Your task to perform on an android device: turn pop-ups off in chrome Image 0: 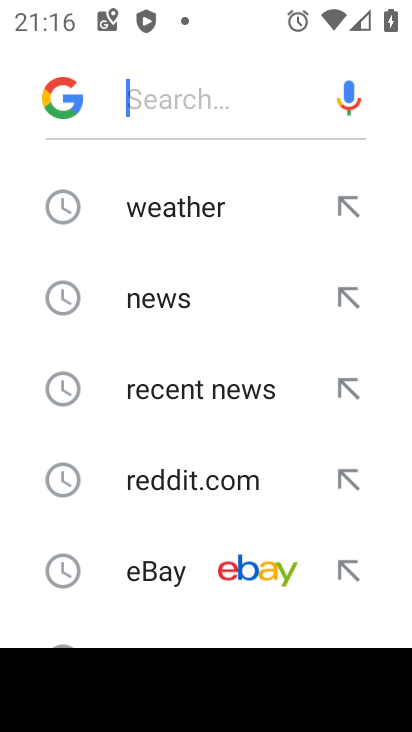
Step 0: press home button
Your task to perform on an android device: turn pop-ups off in chrome Image 1: 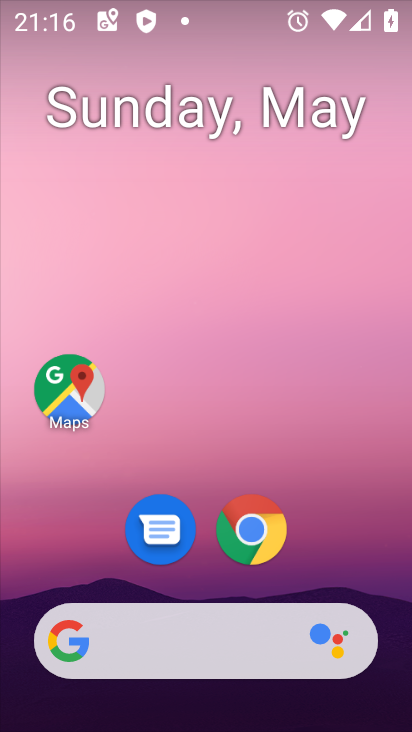
Step 1: click (260, 531)
Your task to perform on an android device: turn pop-ups off in chrome Image 2: 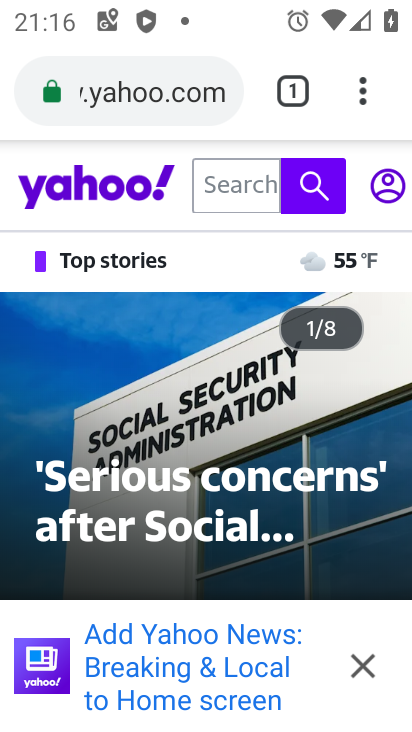
Step 2: click (362, 94)
Your task to perform on an android device: turn pop-ups off in chrome Image 3: 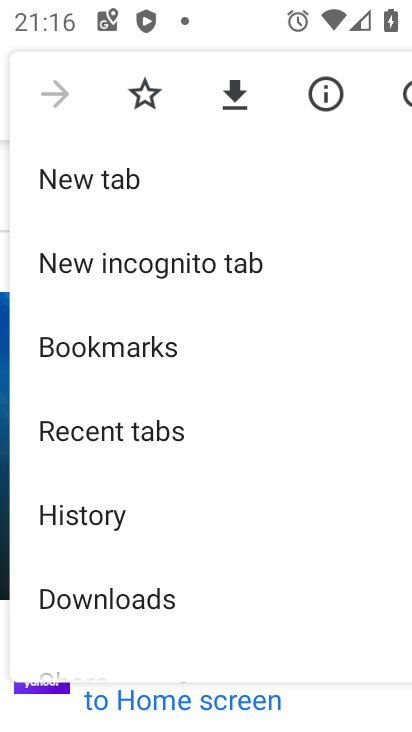
Step 3: drag from (241, 557) to (247, 90)
Your task to perform on an android device: turn pop-ups off in chrome Image 4: 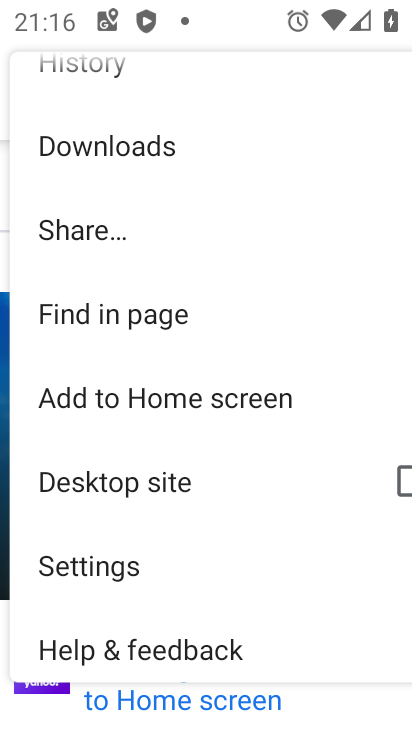
Step 4: click (95, 569)
Your task to perform on an android device: turn pop-ups off in chrome Image 5: 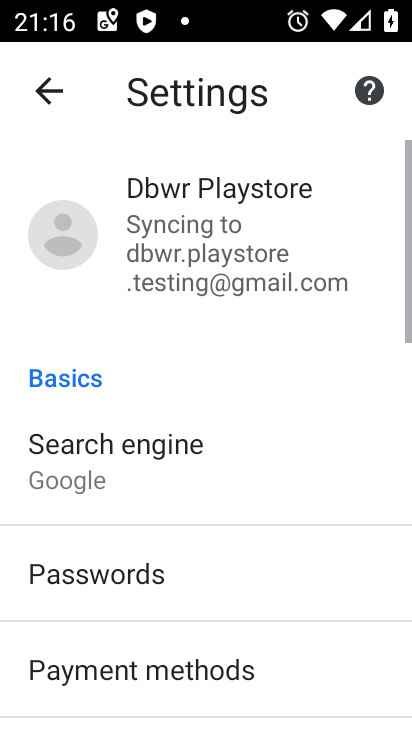
Step 5: drag from (220, 615) to (215, 93)
Your task to perform on an android device: turn pop-ups off in chrome Image 6: 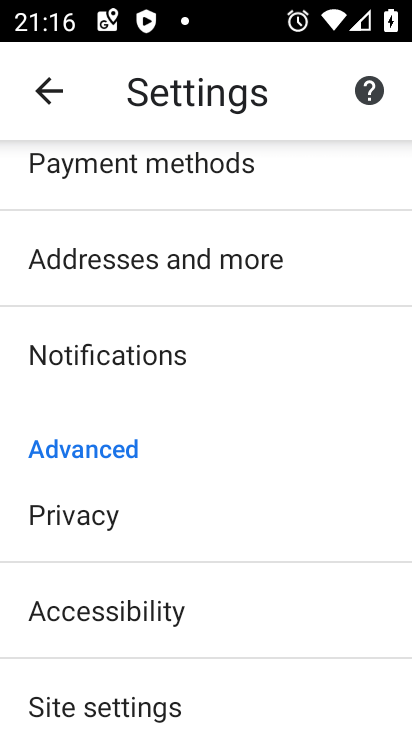
Step 6: drag from (158, 570) to (152, 275)
Your task to perform on an android device: turn pop-ups off in chrome Image 7: 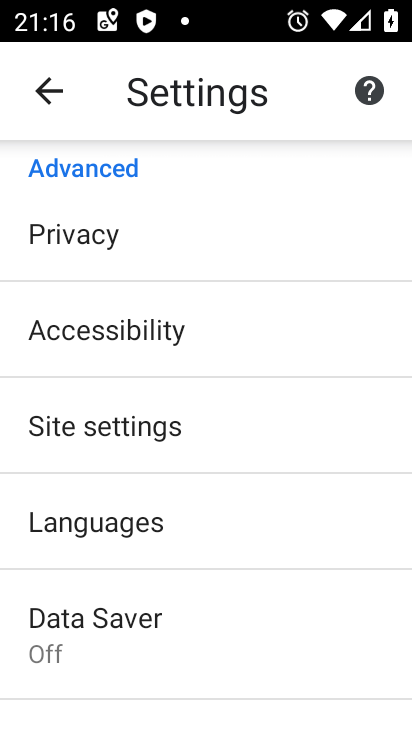
Step 7: click (113, 426)
Your task to perform on an android device: turn pop-ups off in chrome Image 8: 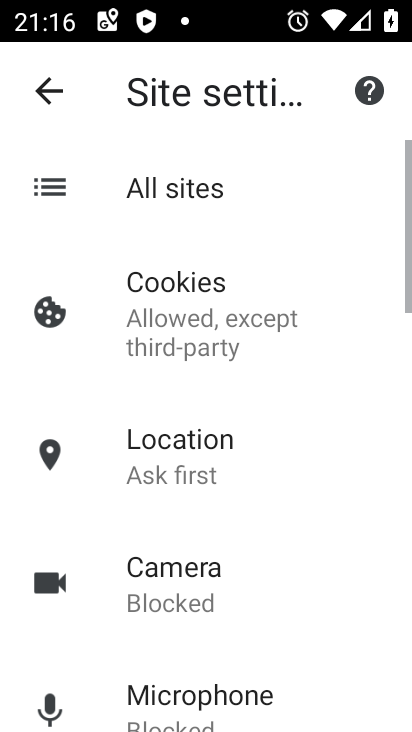
Step 8: drag from (270, 440) to (257, 190)
Your task to perform on an android device: turn pop-ups off in chrome Image 9: 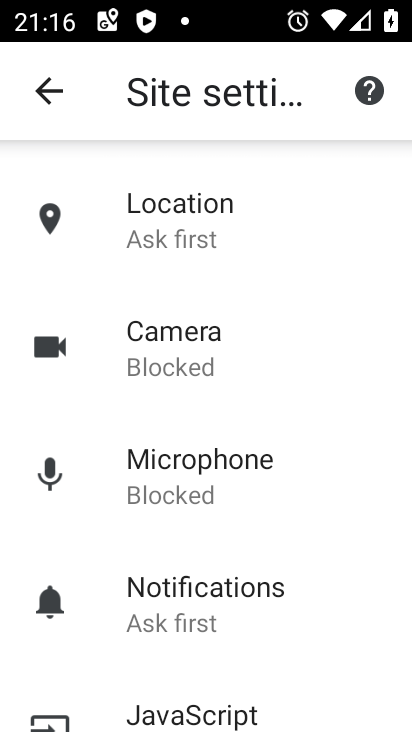
Step 9: drag from (260, 621) to (241, 185)
Your task to perform on an android device: turn pop-ups off in chrome Image 10: 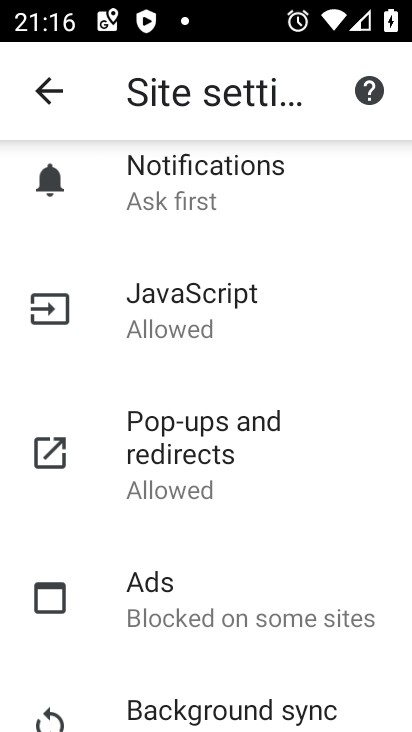
Step 10: click (183, 450)
Your task to perform on an android device: turn pop-ups off in chrome Image 11: 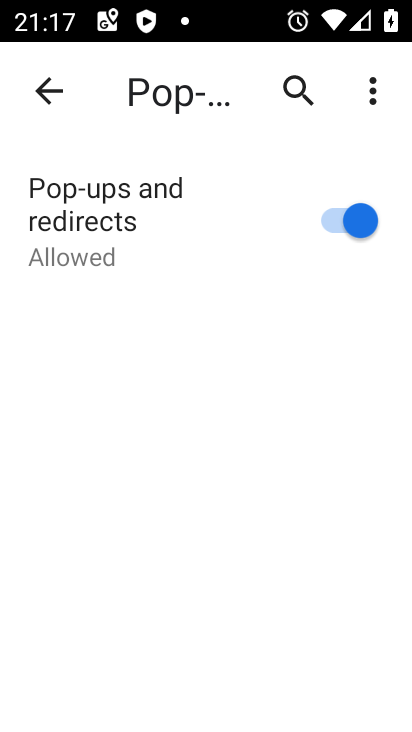
Step 11: click (354, 224)
Your task to perform on an android device: turn pop-ups off in chrome Image 12: 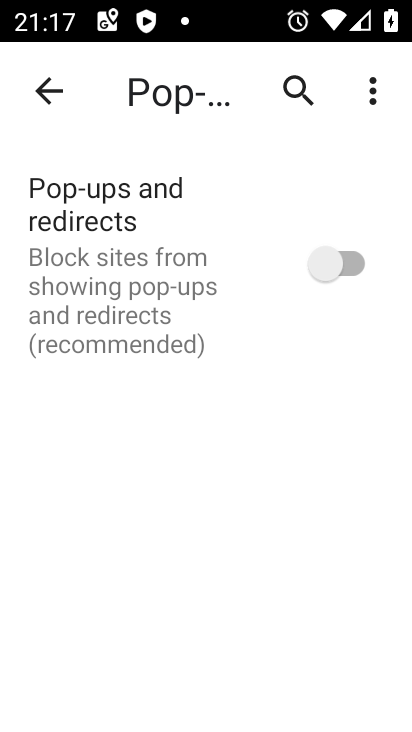
Step 12: task complete